Your task to perform on an android device: Open Chrome and go to settings Image 0: 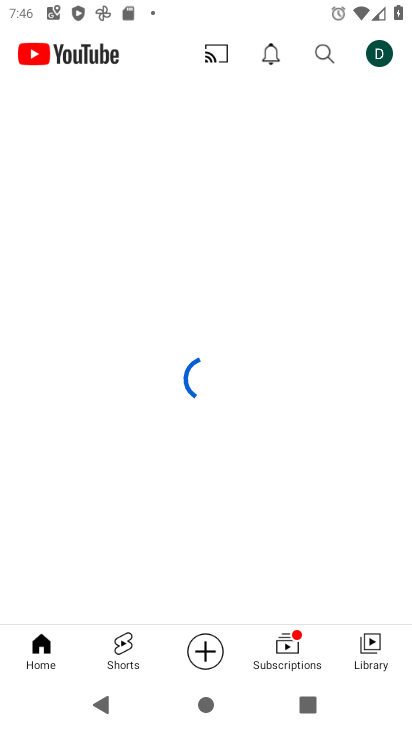
Step 0: press home button
Your task to perform on an android device: Open Chrome and go to settings Image 1: 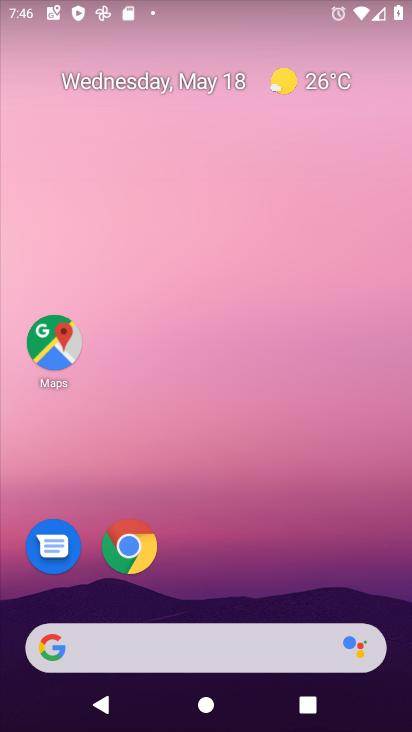
Step 1: drag from (398, 612) to (326, 75)
Your task to perform on an android device: Open Chrome and go to settings Image 2: 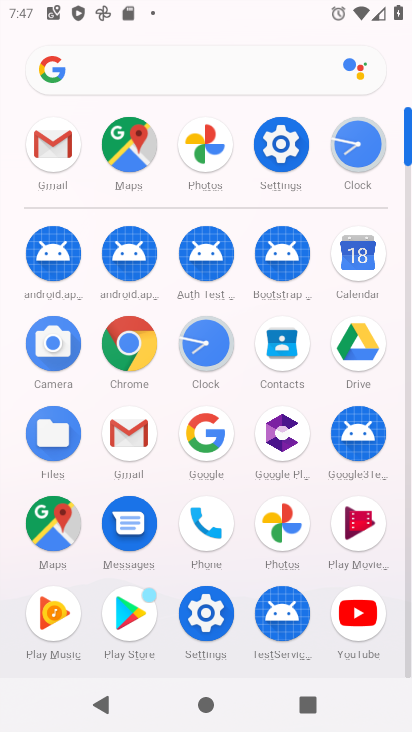
Step 2: click (136, 358)
Your task to perform on an android device: Open Chrome and go to settings Image 3: 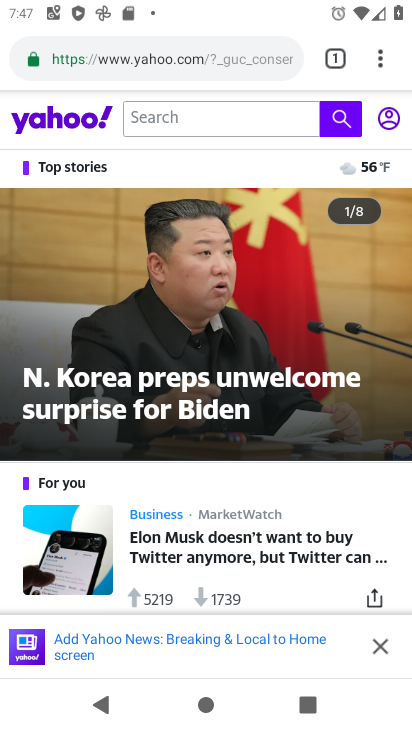
Step 3: press back button
Your task to perform on an android device: Open Chrome and go to settings Image 4: 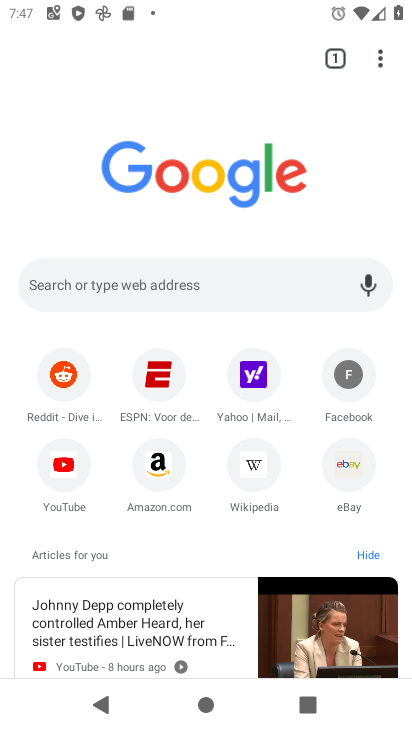
Step 4: click (390, 63)
Your task to perform on an android device: Open Chrome and go to settings Image 5: 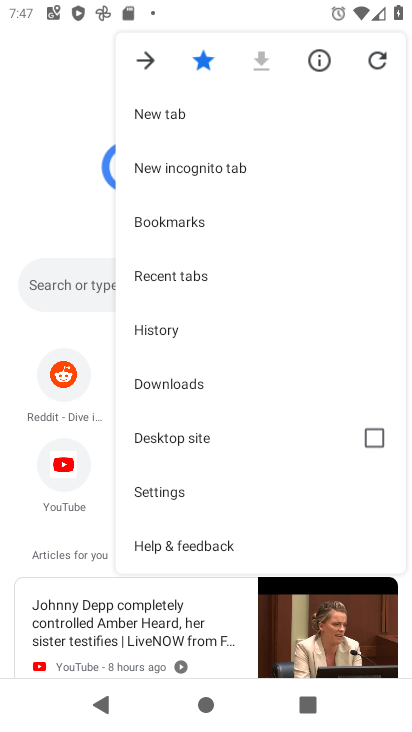
Step 5: click (201, 494)
Your task to perform on an android device: Open Chrome and go to settings Image 6: 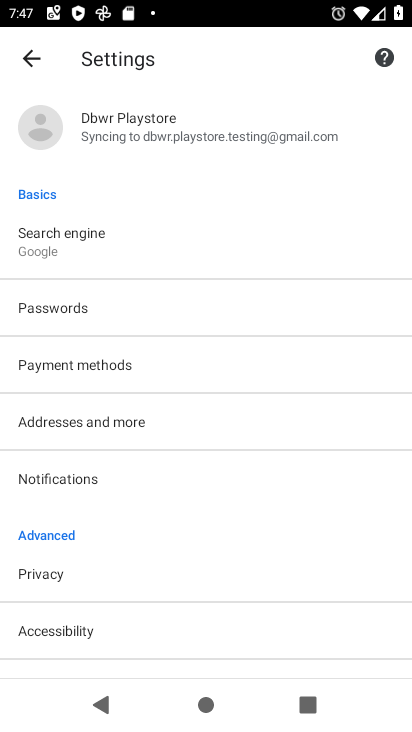
Step 6: task complete